Your task to perform on an android device: Is it going to rain today? Image 0: 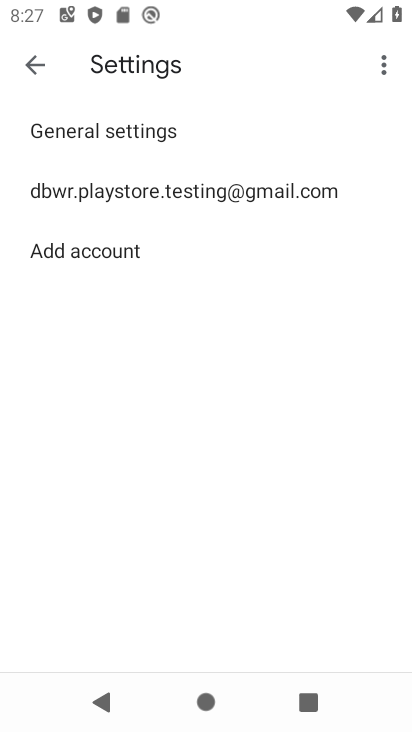
Step 0: press home button
Your task to perform on an android device: Is it going to rain today? Image 1: 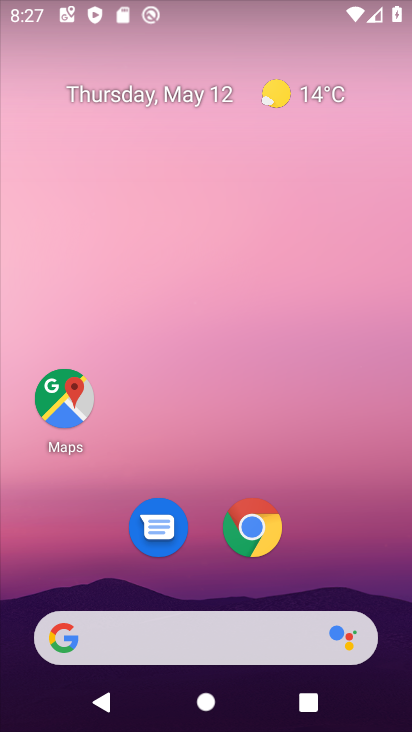
Step 1: click (197, 654)
Your task to perform on an android device: Is it going to rain today? Image 2: 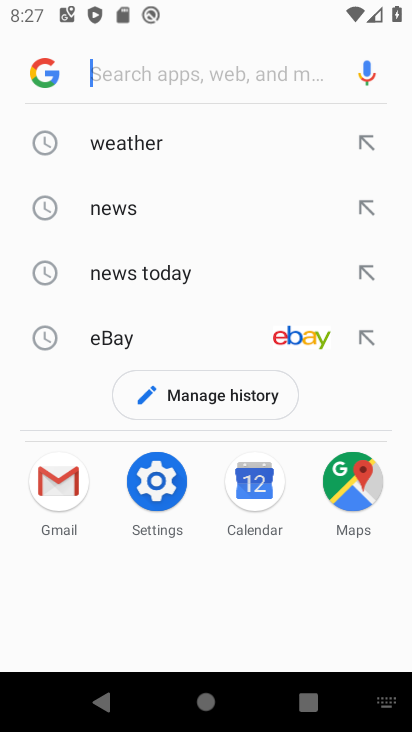
Step 2: click (171, 144)
Your task to perform on an android device: Is it going to rain today? Image 3: 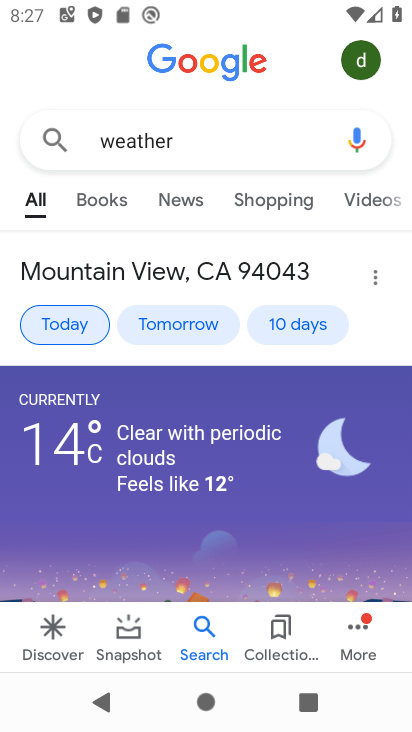
Step 3: task complete